Your task to perform on an android device: Open the calendar app, open the side menu, and click the "Day" option Image 0: 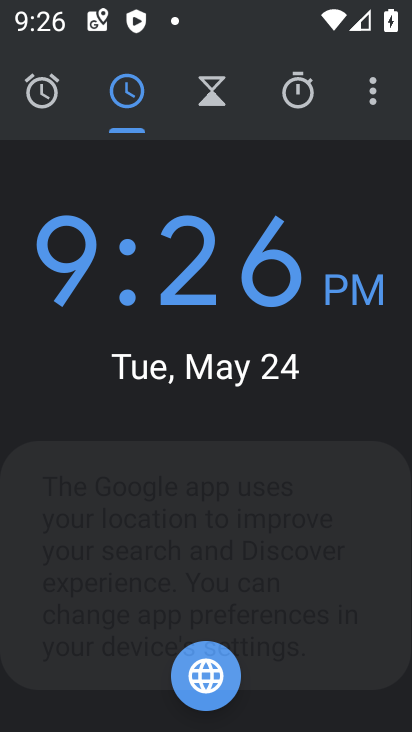
Step 0: press home button
Your task to perform on an android device: Open the calendar app, open the side menu, and click the "Day" option Image 1: 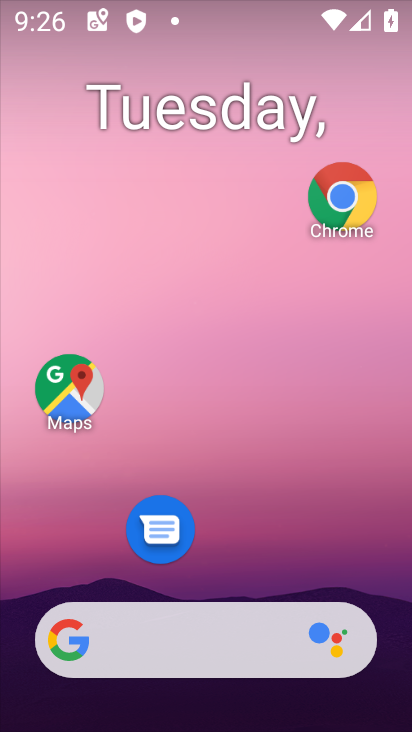
Step 1: click (209, 5)
Your task to perform on an android device: Open the calendar app, open the side menu, and click the "Day" option Image 2: 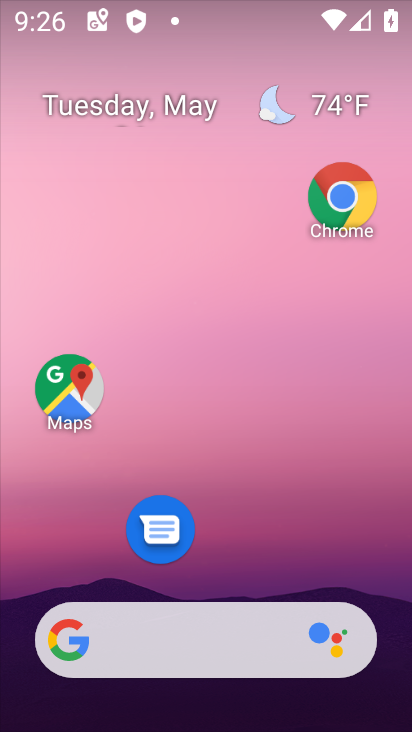
Step 2: press home button
Your task to perform on an android device: Open the calendar app, open the side menu, and click the "Day" option Image 3: 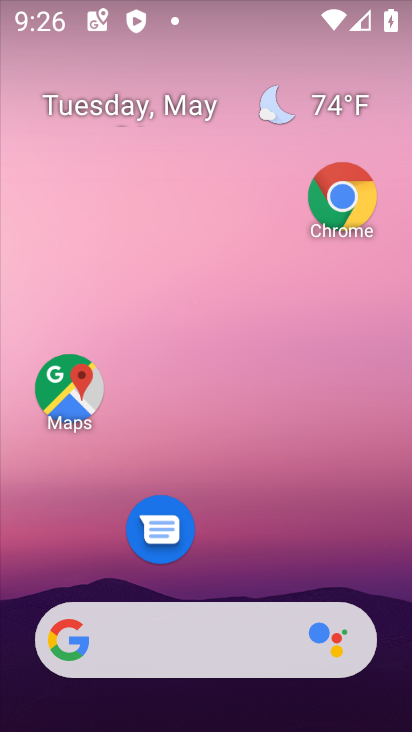
Step 3: drag from (241, 537) to (226, 85)
Your task to perform on an android device: Open the calendar app, open the side menu, and click the "Day" option Image 4: 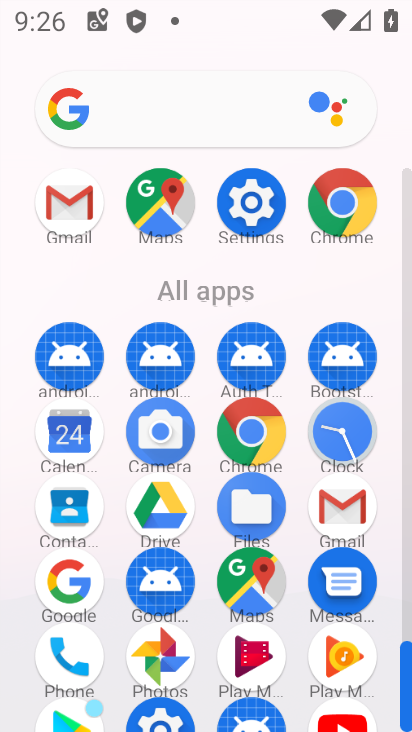
Step 4: click (61, 438)
Your task to perform on an android device: Open the calendar app, open the side menu, and click the "Day" option Image 5: 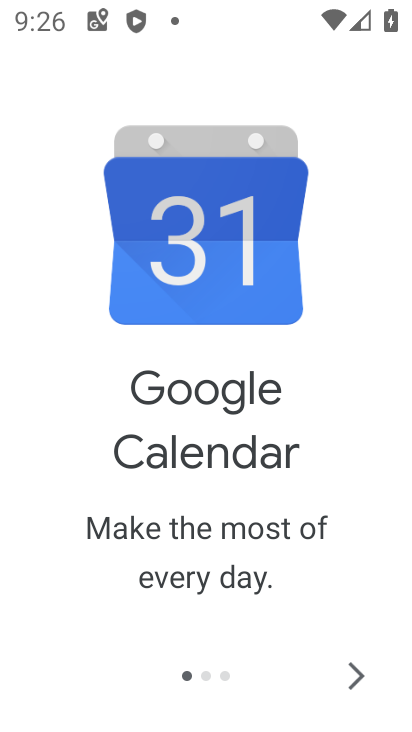
Step 5: click (359, 687)
Your task to perform on an android device: Open the calendar app, open the side menu, and click the "Day" option Image 6: 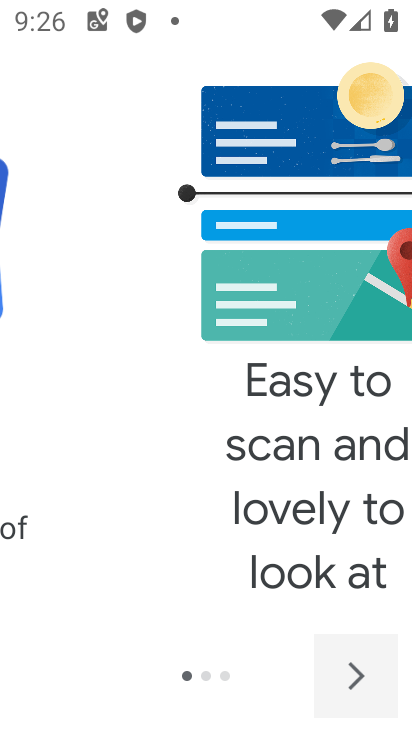
Step 6: click (357, 687)
Your task to perform on an android device: Open the calendar app, open the side menu, and click the "Day" option Image 7: 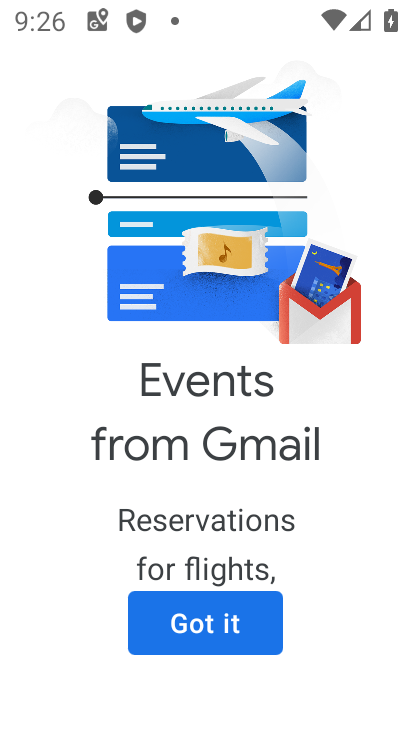
Step 7: click (219, 636)
Your task to perform on an android device: Open the calendar app, open the side menu, and click the "Day" option Image 8: 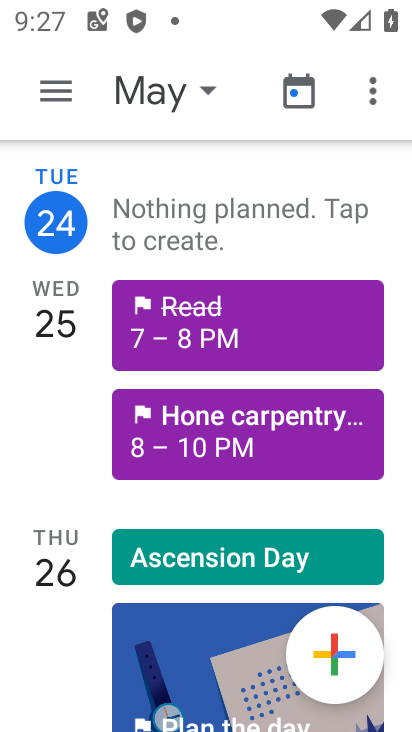
Step 8: click (47, 104)
Your task to perform on an android device: Open the calendar app, open the side menu, and click the "Day" option Image 9: 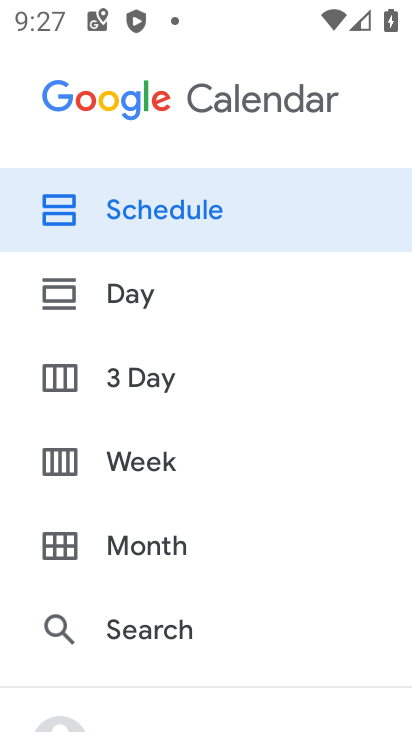
Step 9: click (134, 307)
Your task to perform on an android device: Open the calendar app, open the side menu, and click the "Day" option Image 10: 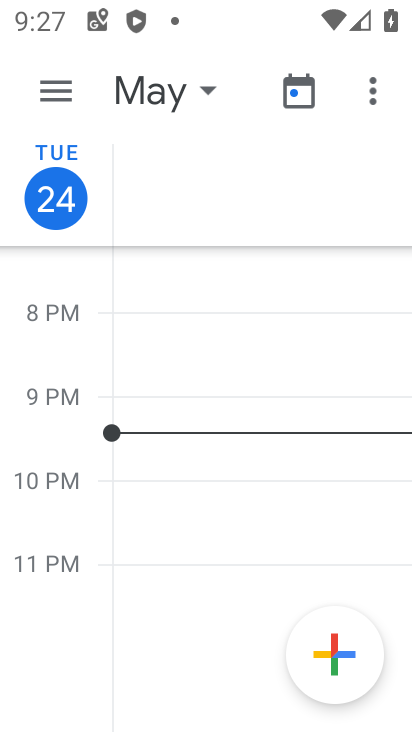
Step 10: task complete